Your task to perform on an android device: make emails show in primary in the gmail app Image 0: 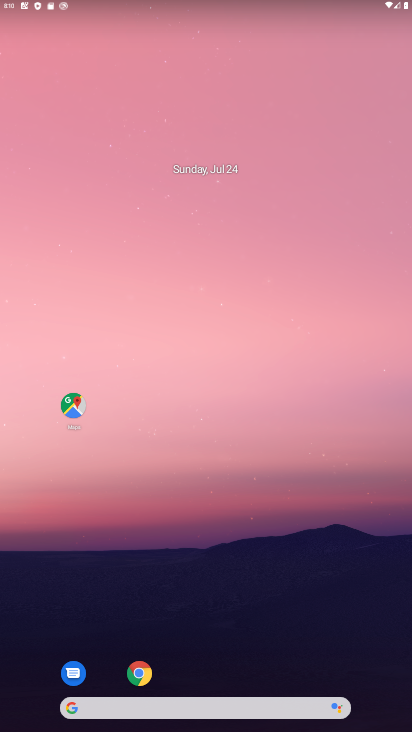
Step 0: drag from (173, 645) to (236, 241)
Your task to perform on an android device: make emails show in primary in the gmail app Image 1: 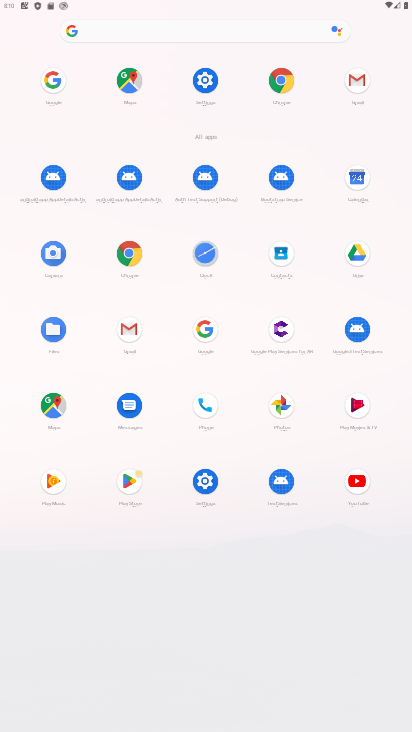
Step 1: click (358, 83)
Your task to perform on an android device: make emails show in primary in the gmail app Image 2: 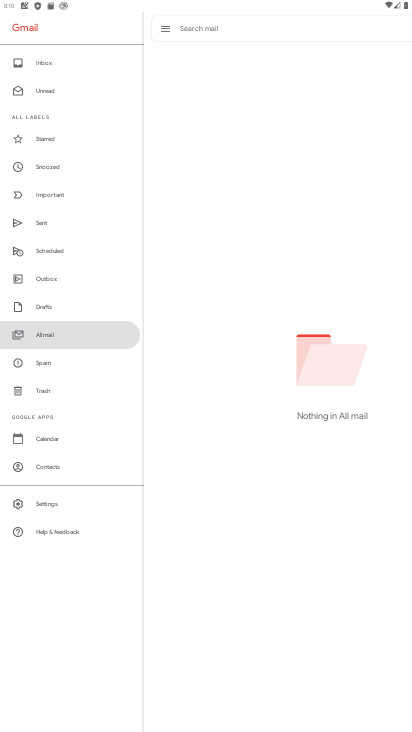
Step 2: click (358, 83)
Your task to perform on an android device: make emails show in primary in the gmail app Image 3: 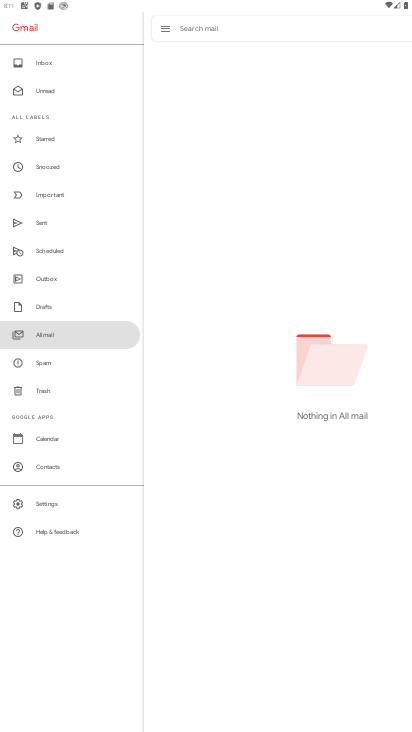
Step 3: click (38, 506)
Your task to perform on an android device: make emails show in primary in the gmail app Image 4: 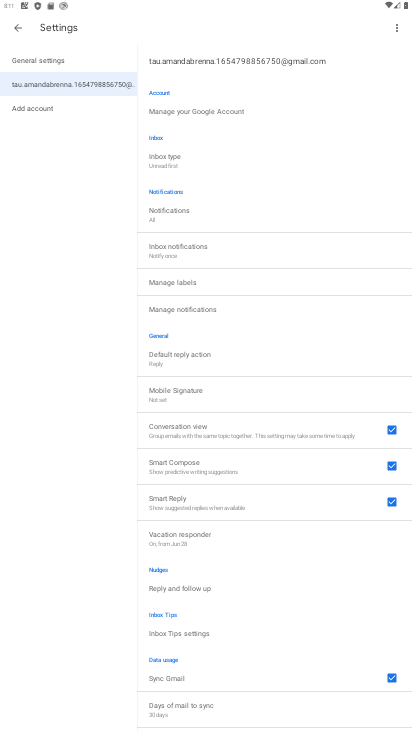
Step 4: task complete